Your task to perform on an android device: turn off location history Image 0: 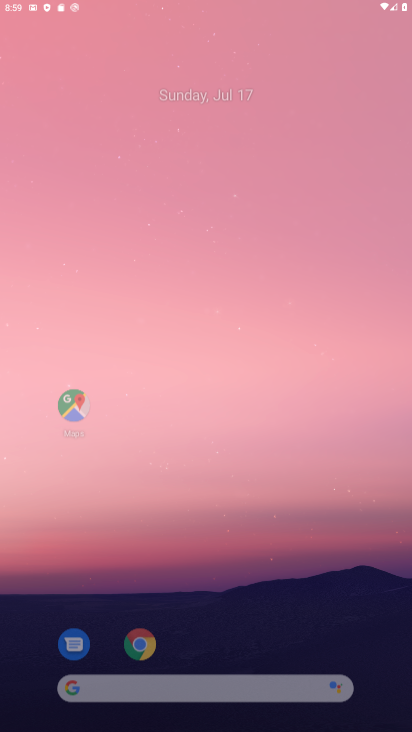
Step 0: click (176, 239)
Your task to perform on an android device: turn off location history Image 1: 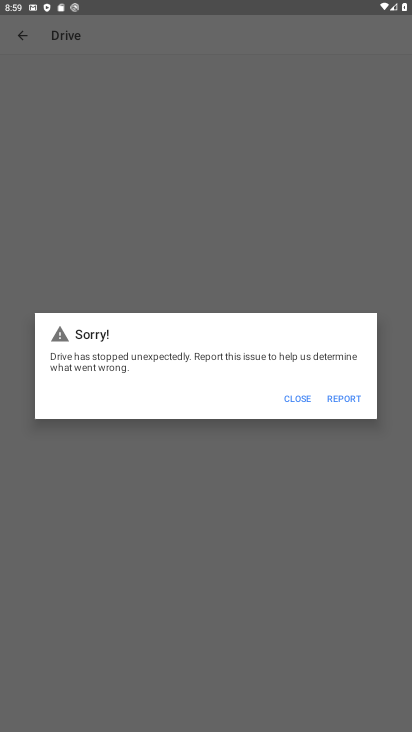
Step 1: press home button
Your task to perform on an android device: turn off location history Image 2: 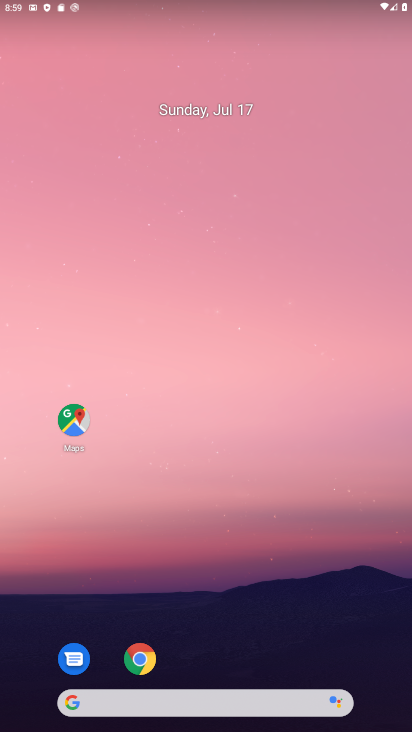
Step 2: drag from (222, 673) to (190, 49)
Your task to perform on an android device: turn off location history Image 3: 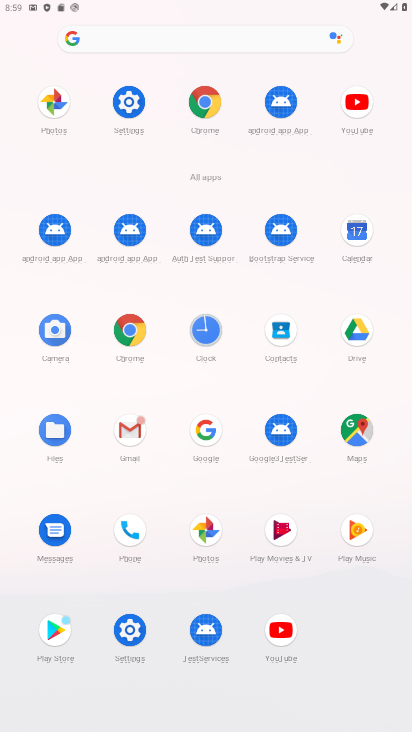
Step 3: click (124, 94)
Your task to perform on an android device: turn off location history Image 4: 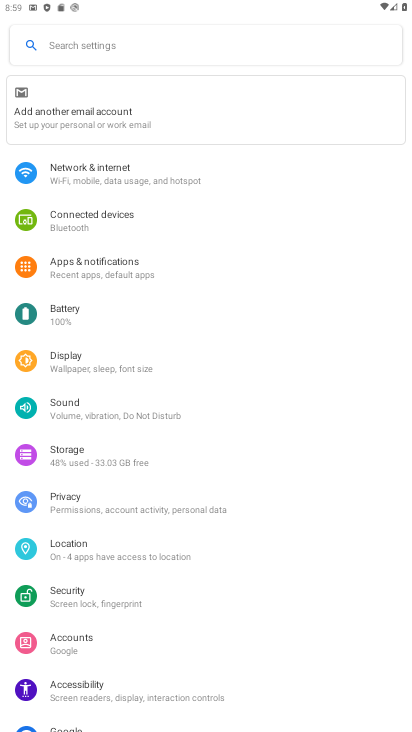
Step 4: click (145, 566)
Your task to perform on an android device: turn off location history Image 5: 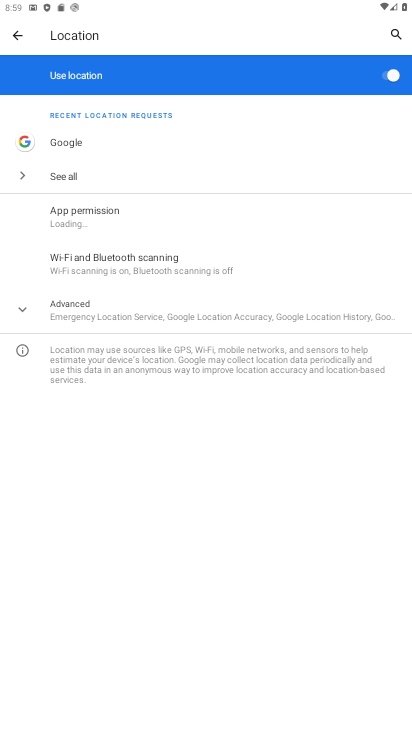
Step 5: click (48, 317)
Your task to perform on an android device: turn off location history Image 6: 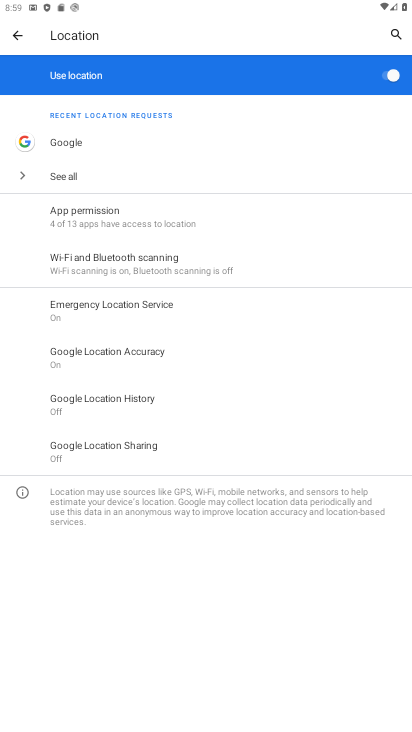
Step 6: click (84, 414)
Your task to perform on an android device: turn off location history Image 7: 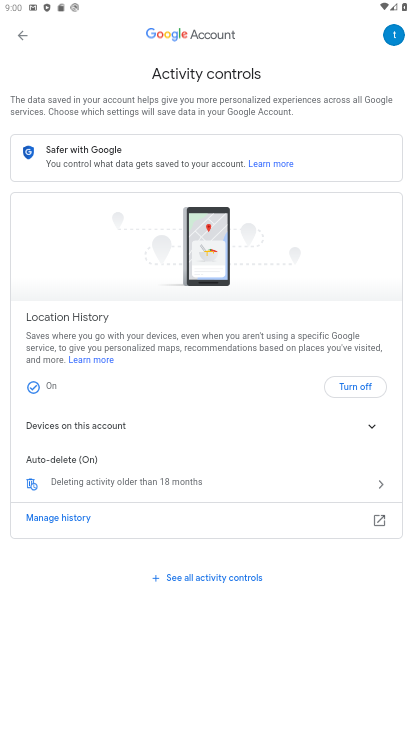
Step 7: click (360, 390)
Your task to perform on an android device: turn off location history Image 8: 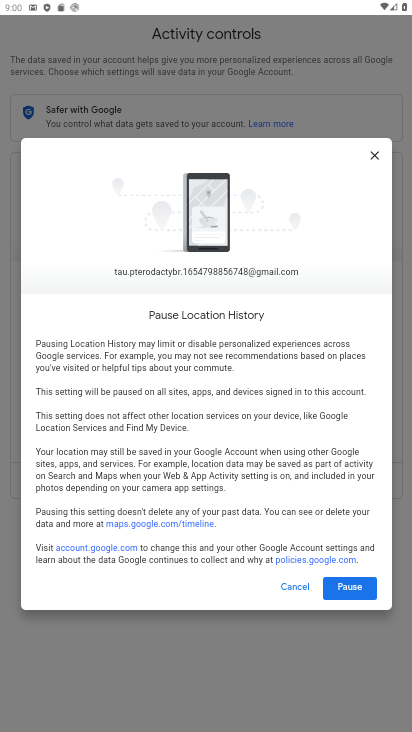
Step 8: click (349, 594)
Your task to perform on an android device: turn off location history Image 9: 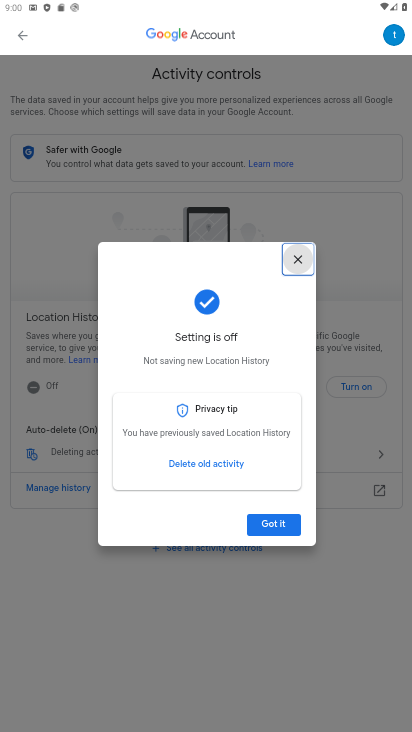
Step 9: task complete